Your task to perform on an android device: toggle wifi Image 0: 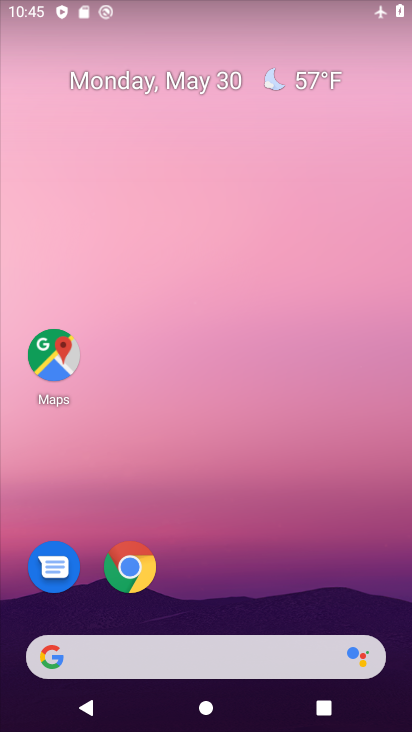
Step 0: drag from (192, 611) to (205, 225)
Your task to perform on an android device: toggle wifi Image 1: 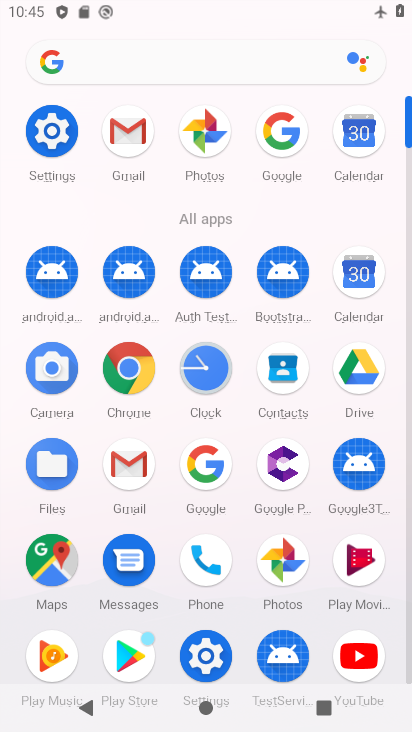
Step 1: click (52, 137)
Your task to perform on an android device: toggle wifi Image 2: 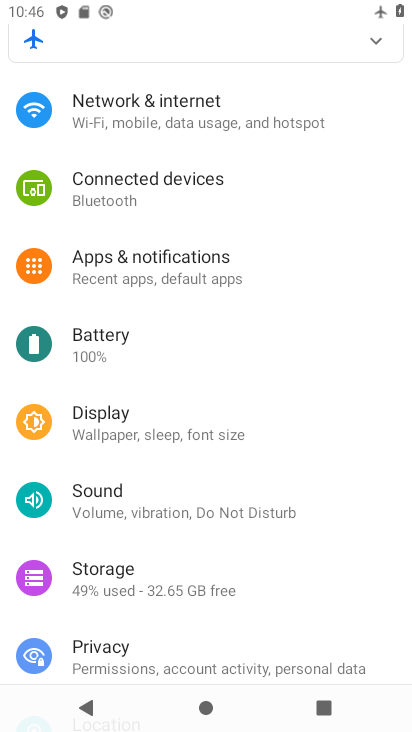
Step 2: click (181, 132)
Your task to perform on an android device: toggle wifi Image 3: 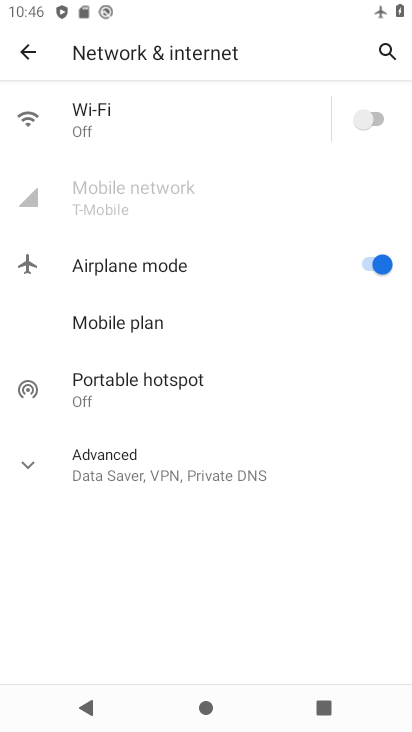
Step 3: click (373, 117)
Your task to perform on an android device: toggle wifi Image 4: 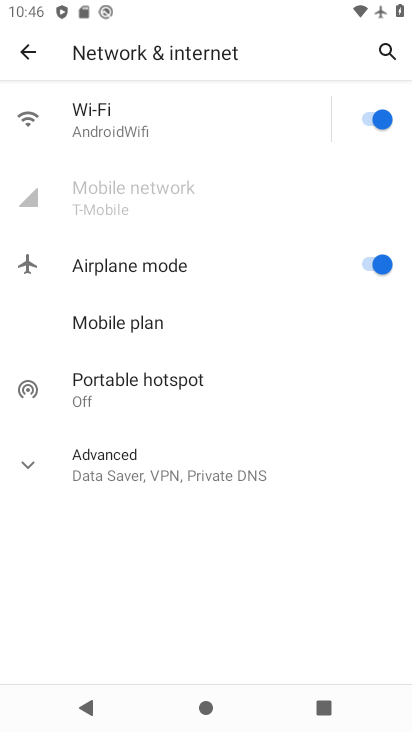
Step 4: task complete